Your task to perform on an android device: See recent photos Image 0: 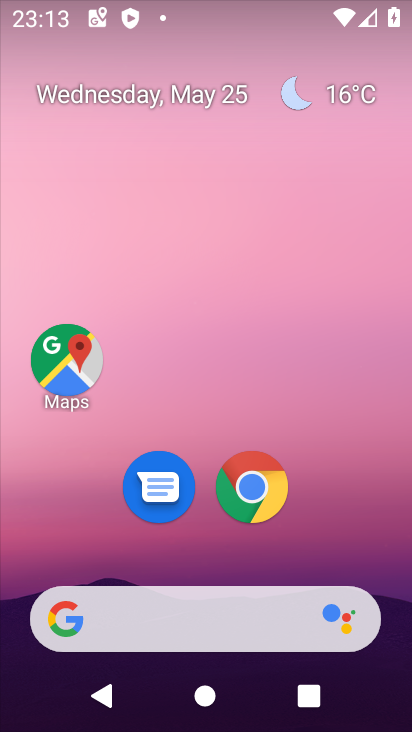
Step 0: drag from (142, 585) to (137, 0)
Your task to perform on an android device: See recent photos Image 1: 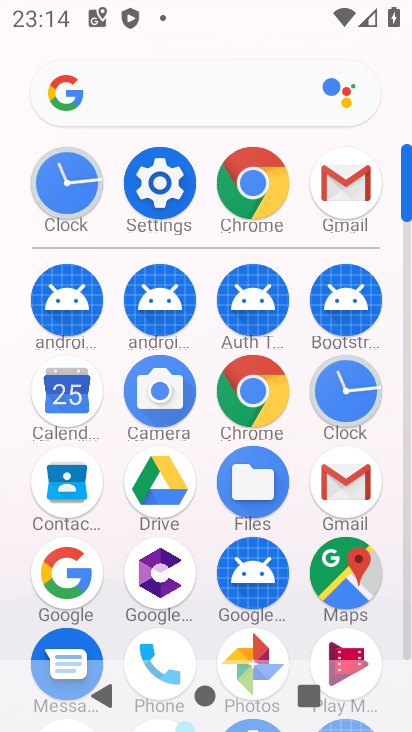
Step 1: click (271, 650)
Your task to perform on an android device: See recent photos Image 2: 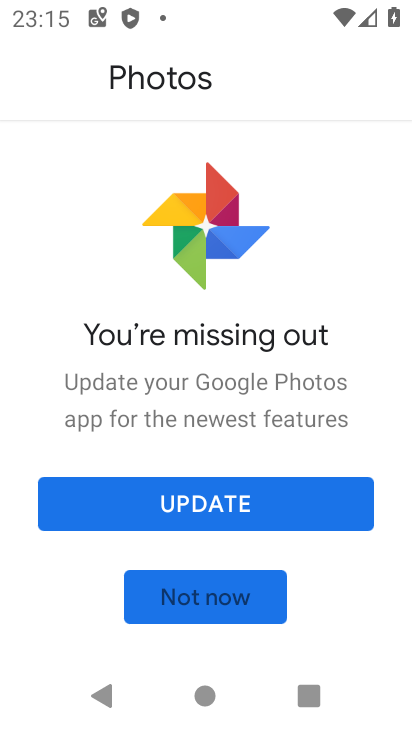
Step 2: click (246, 491)
Your task to perform on an android device: See recent photos Image 3: 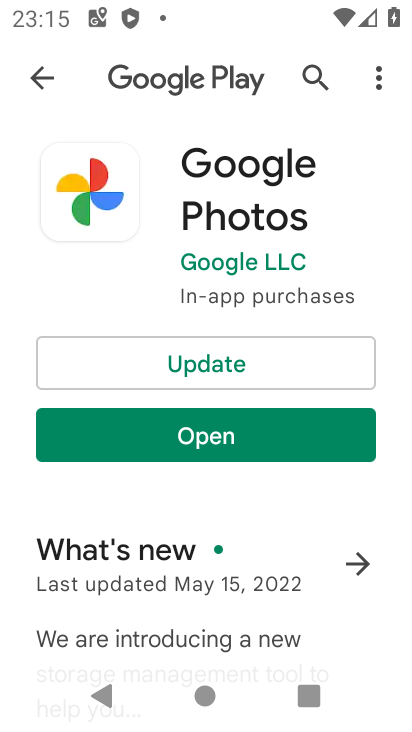
Step 3: click (257, 373)
Your task to perform on an android device: See recent photos Image 4: 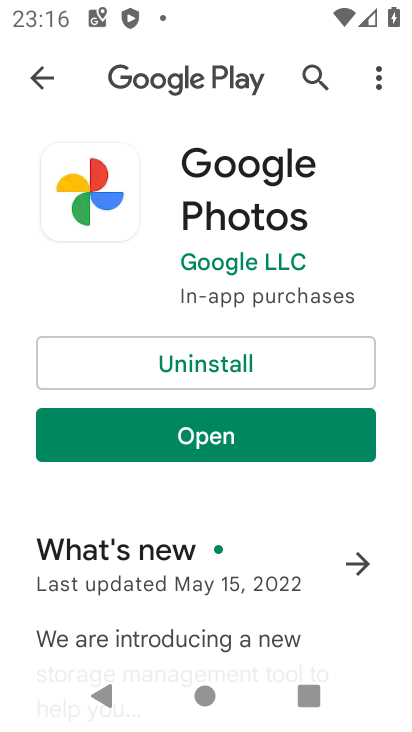
Step 4: click (261, 444)
Your task to perform on an android device: See recent photos Image 5: 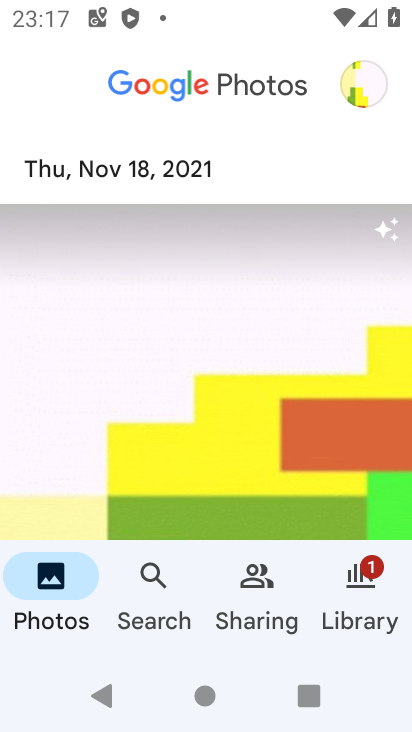
Step 5: task complete